Your task to perform on an android device: turn notification dots off Image 0: 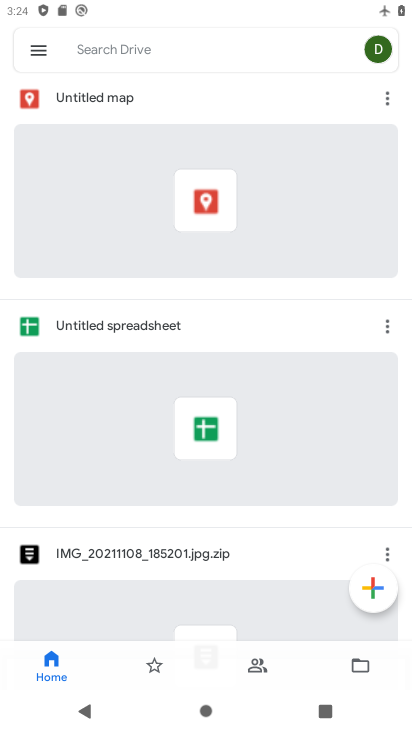
Step 0: press home button
Your task to perform on an android device: turn notification dots off Image 1: 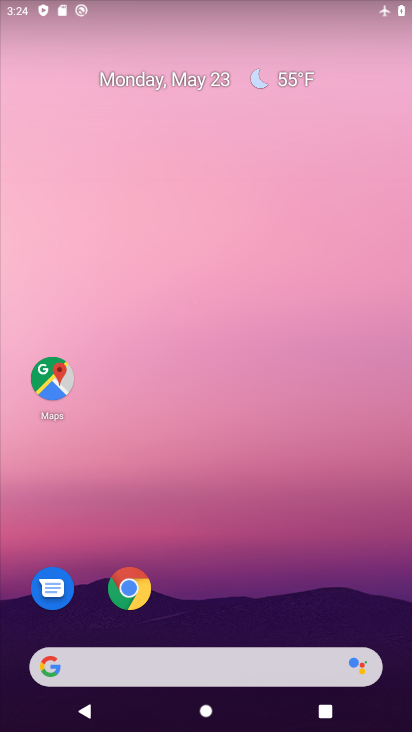
Step 1: drag from (246, 570) to (326, 75)
Your task to perform on an android device: turn notification dots off Image 2: 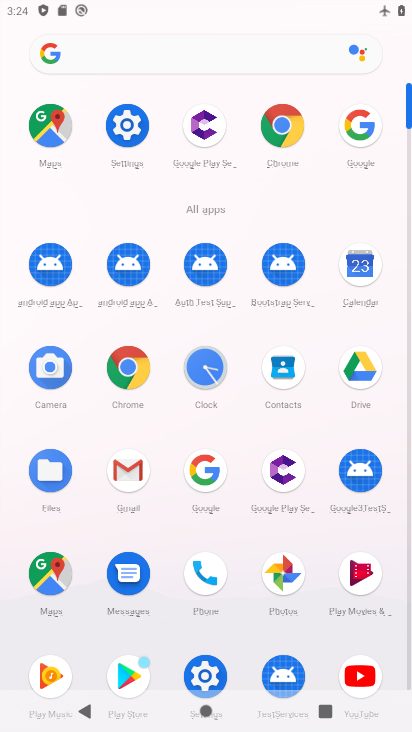
Step 2: click (131, 127)
Your task to perform on an android device: turn notification dots off Image 3: 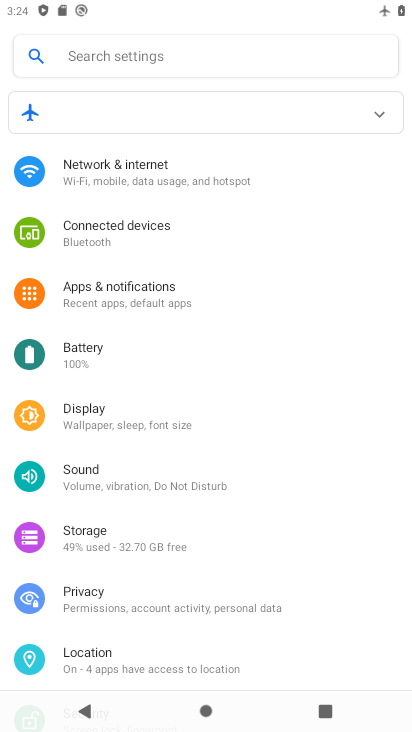
Step 3: click (140, 301)
Your task to perform on an android device: turn notification dots off Image 4: 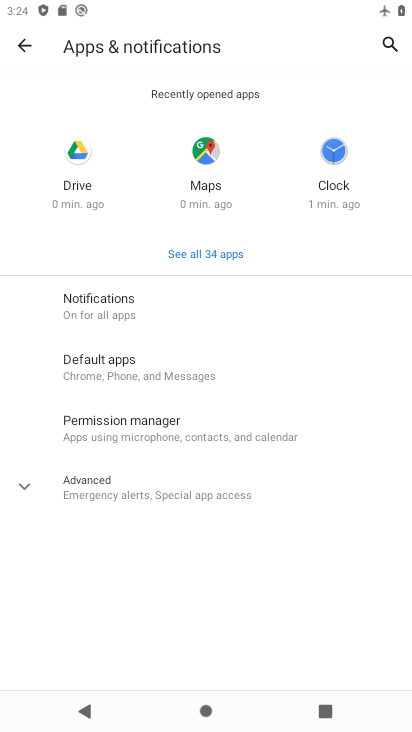
Step 4: click (141, 307)
Your task to perform on an android device: turn notification dots off Image 5: 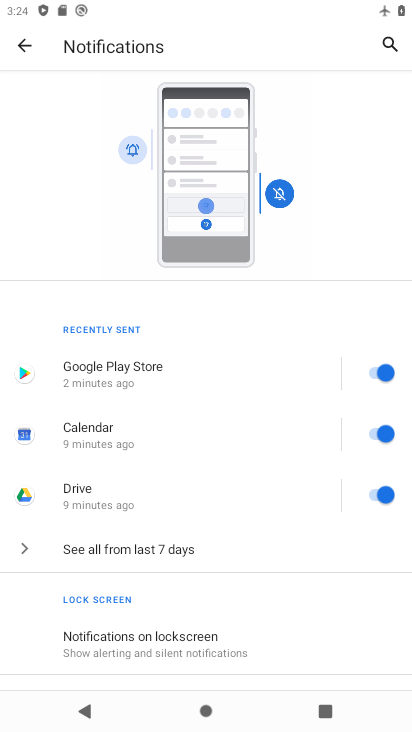
Step 5: drag from (89, 577) to (180, 245)
Your task to perform on an android device: turn notification dots off Image 6: 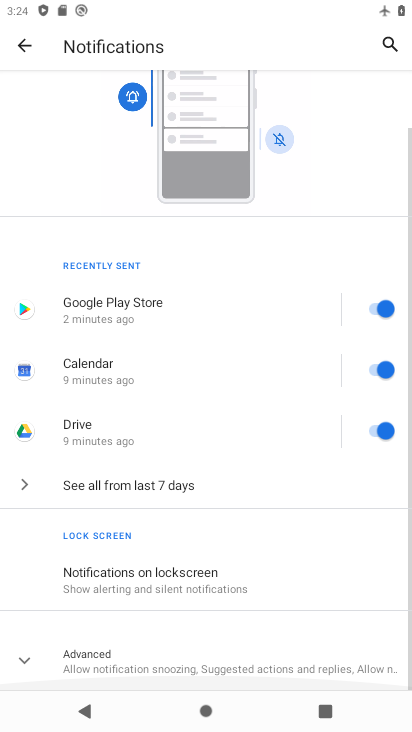
Step 6: click (127, 655)
Your task to perform on an android device: turn notification dots off Image 7: 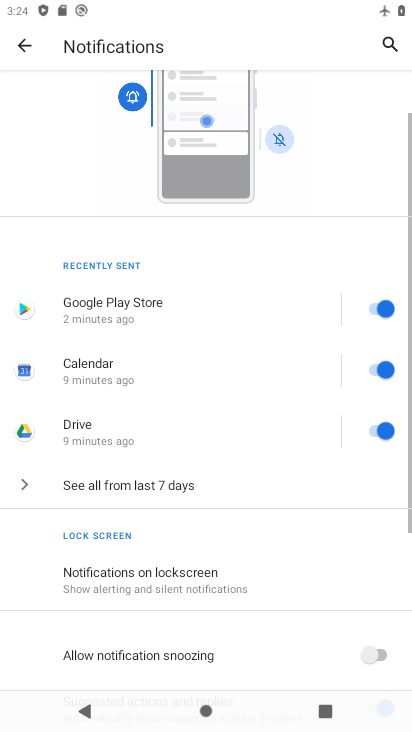
Step 7: drag from (300, 569) to (312, 110)
Your task to perform on an android device: turn notification dots off Image 8: 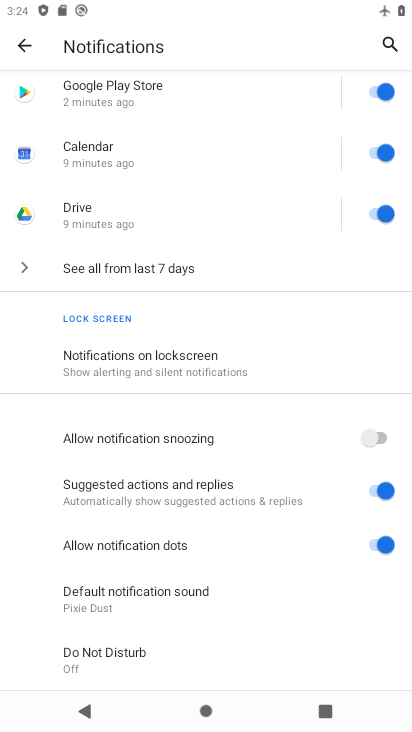
Step 8: click (378, 542)
Your task to perform on an android device: turn notification dots off Image 9: 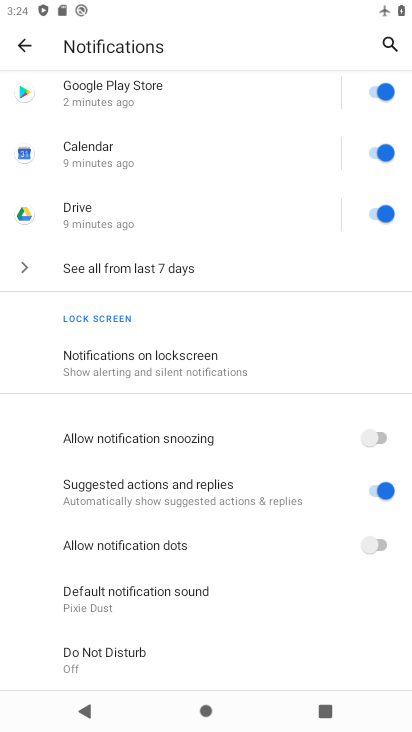
Step 9: task complete